Your task to perform on an android device: stop showing notifications on the lock screen Image 0: 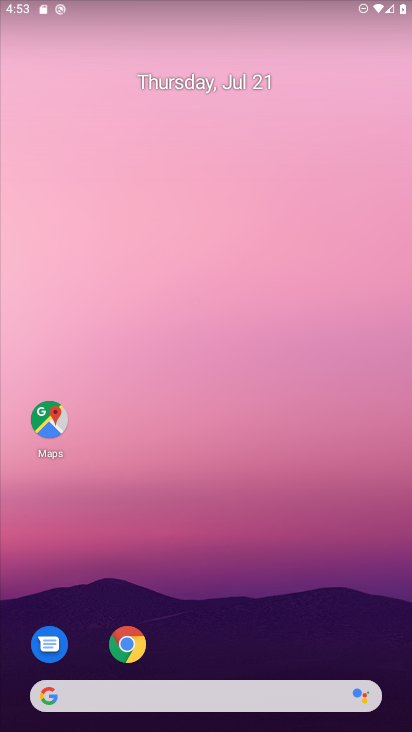
Step 0: drag from (186, 530) to (220, 190)
Your task to perform on an android device: stop showing notifications on the lock screen Image 1: 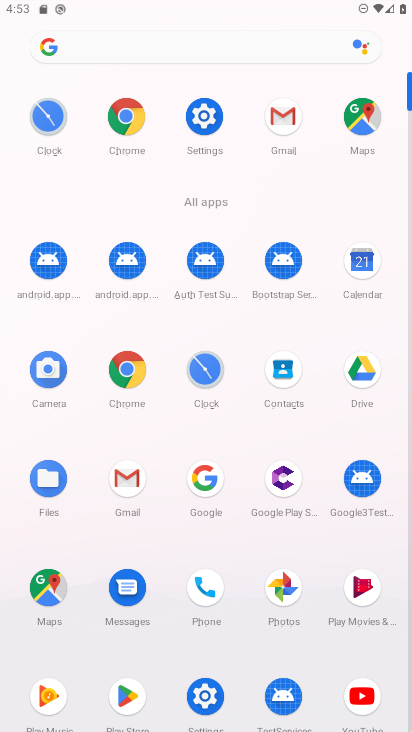
Step 1: click (212, 143)
Your task to perform on an android device: stop showing notifications on the lock screen Image 2: 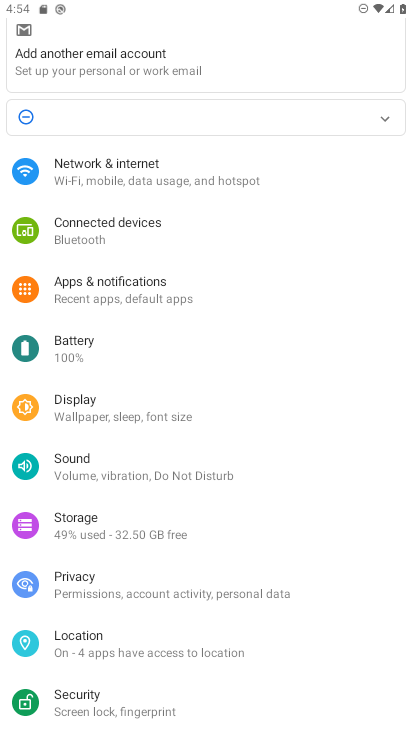
Step 2: click (97, 304)
Your task to perform on an android device: stop showing notifications on the lock screen Image 3: 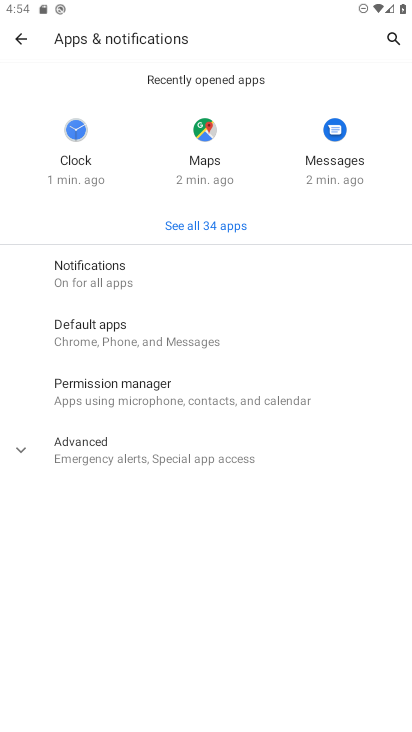
Step 3: click (115, 270)
Your task to perform on an android device: stop showing notifications on the lock screen Image 4: 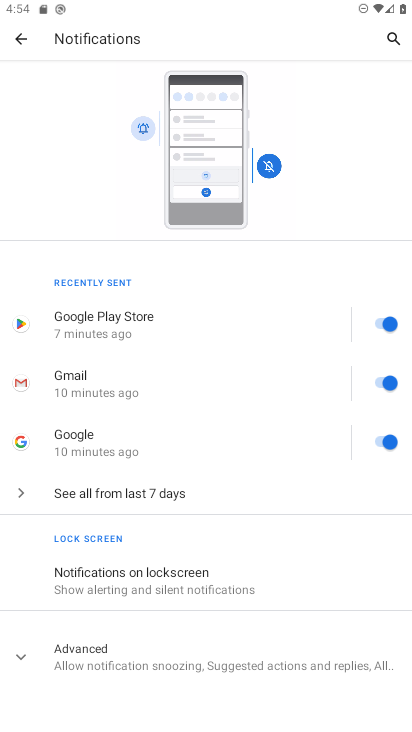
Step 4: click (167, 573)
Your task to perform on an android device: stop showing notifications on the lock screen Image 5: 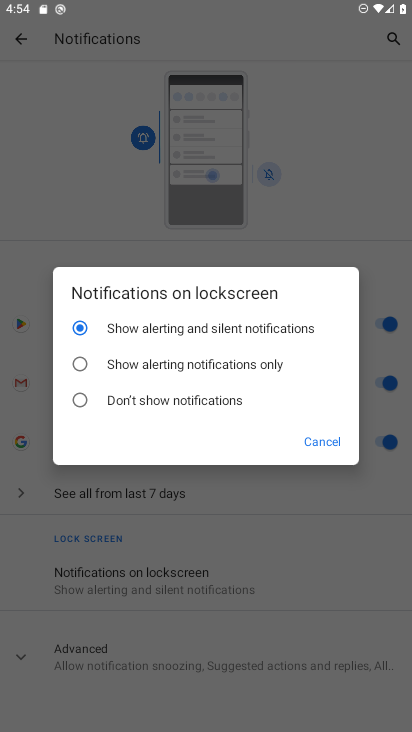
Step 5: click (84, 399)
Your task to perform on an android device: stop showing notifications on the lock screen Image 6: 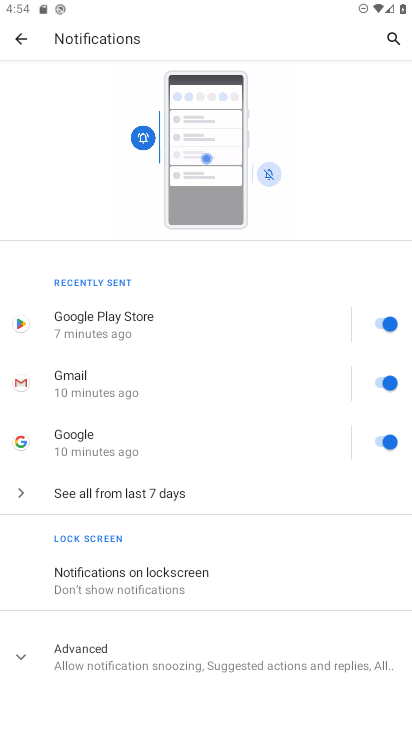
Step 6: task complete